Your task to perform on an android device: Open Youtube and go to the subscriptions tab Image 0: 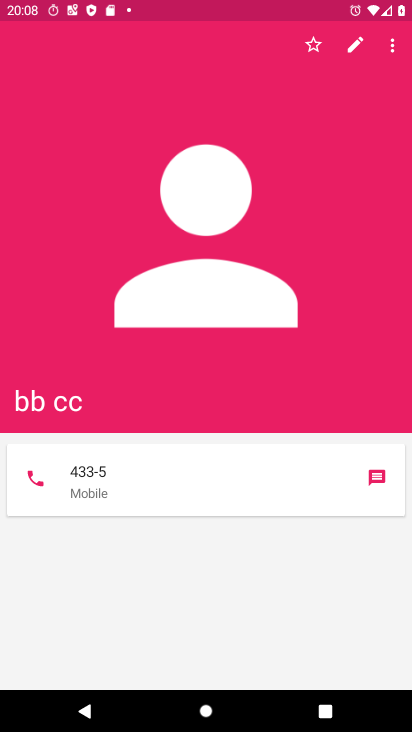
Step 0: press home button
Your task to perform on an android device: Open Youtube and go to the subscriptions tab Image 1: 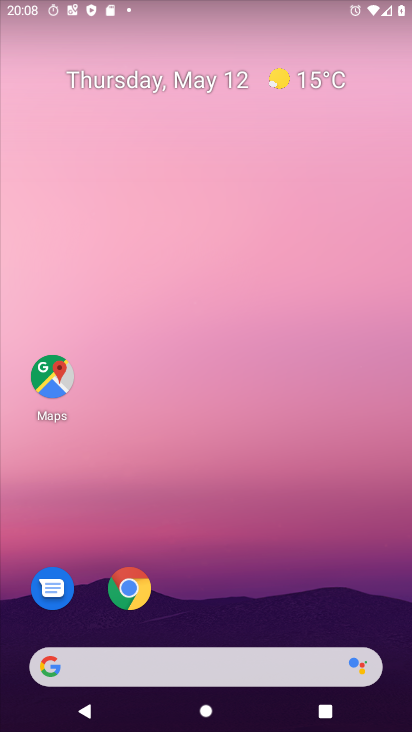
Step 1: drag from (188, 612) to (241, 308)
Your task to perform on an android device: Open Youtube and go to the subscriptions tab Image 2: 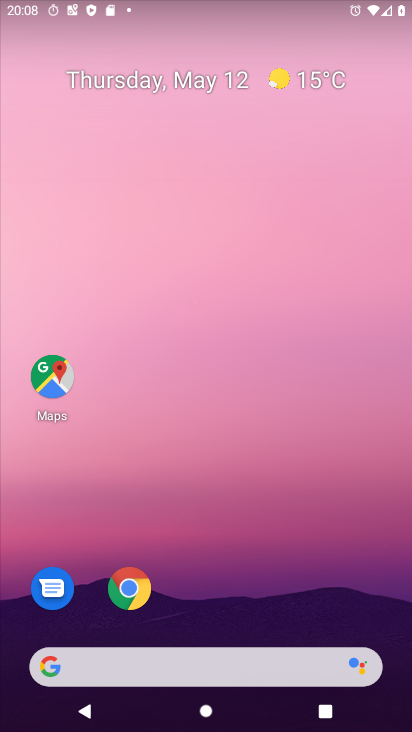
Step 2: drag from (257, 554) to (334, 216)
Your task to perform on an android device: Open Youtube and go to the subscriptions tab Image 3: 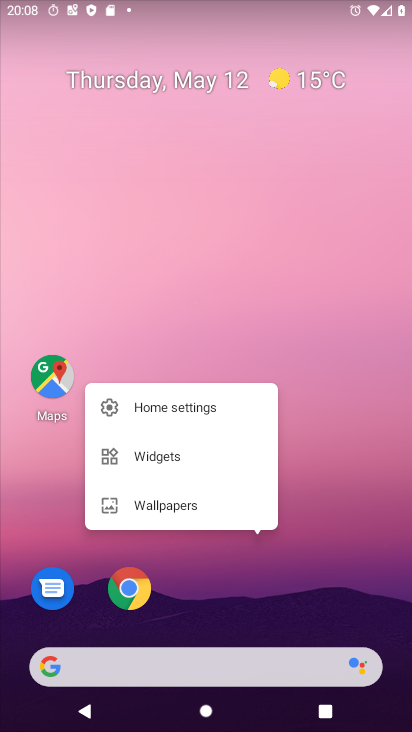
Step 3: drag from (226, 587) to (296, 222)
Your task to perform on an android device: Open Youtube and go to the subscriptions tab Image 4: 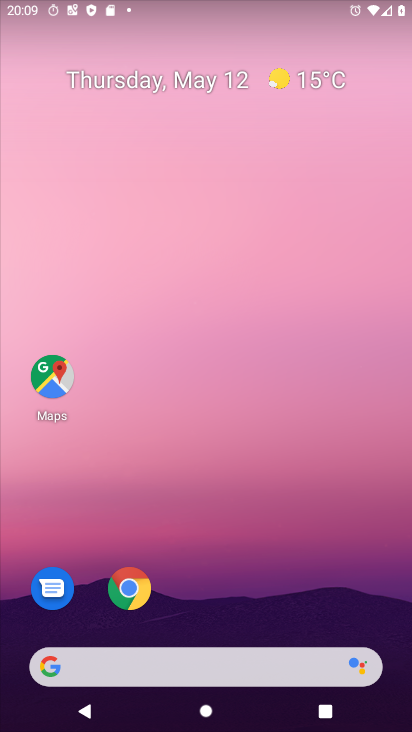
Step 4: drag from (234, 607) to (310, 145)
Your task to perform on an android device: Open Youtube and go to the subscriptions tab Image 5: 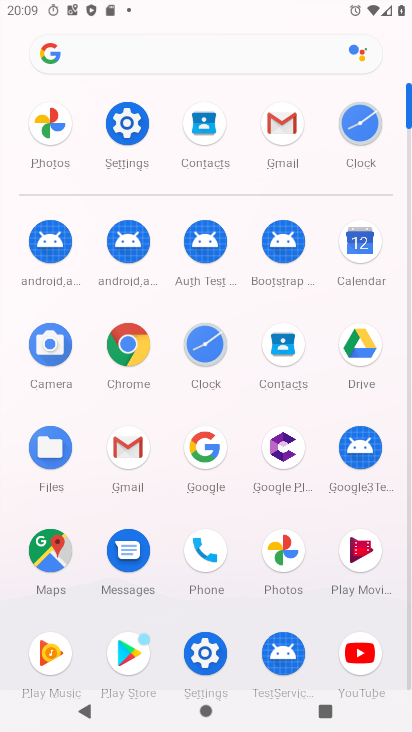
Step 5: click (364, 650)
Your task to perform on an android device: Open Youtube and go to the subscriptions tab Image 6: 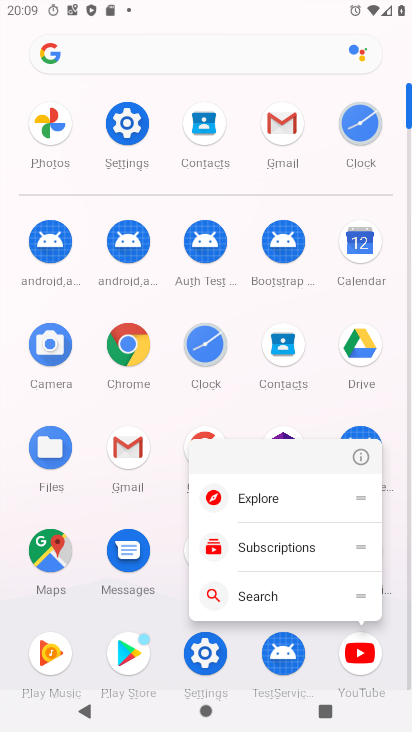
Step 6: click (359, 653)
Your task to perform on an android device: Open Youtube and go to the subscriptions tab Image 7: 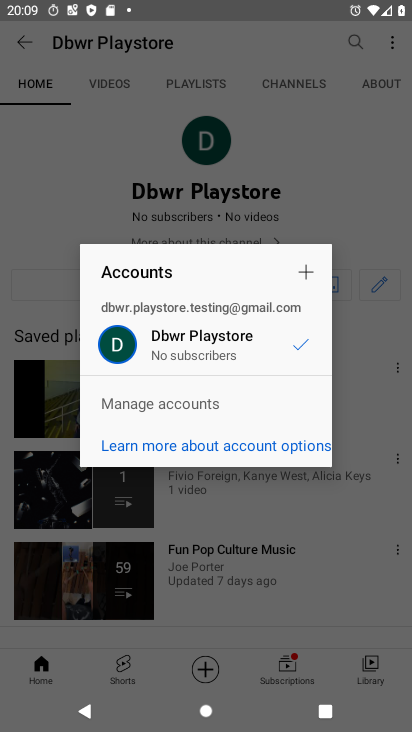
Step 7: click (282, 662)
Your task to perform on an android device: Open Youtube and go to the subscriptions tab Image 8: 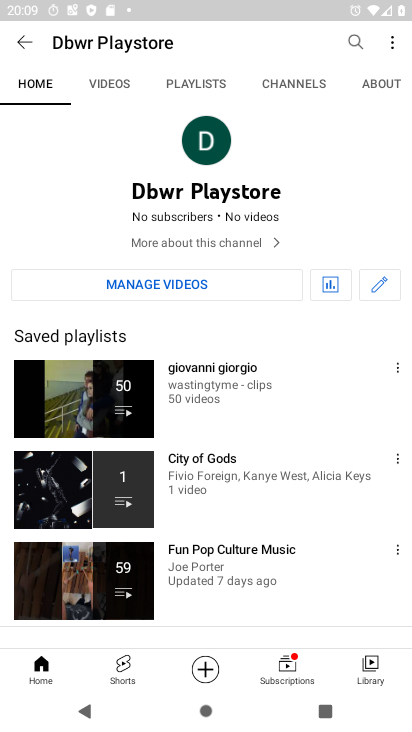
Step 8: click (282, 662)
Your task to perform on an android device: Open Youtube and go to the subscriptions tab Image 9: 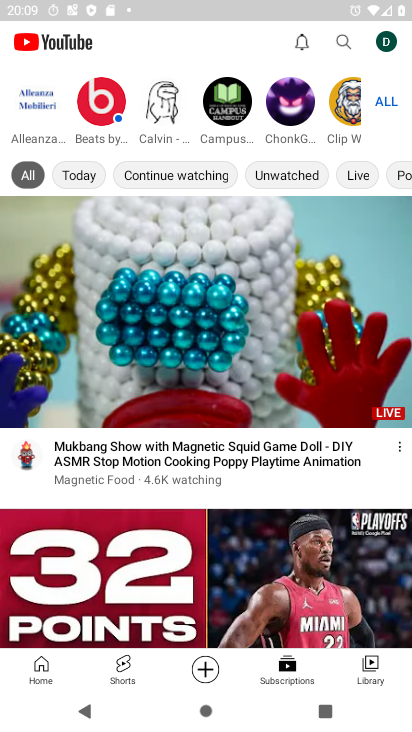
Step 9: task complete